Your task to perform on an android device: turn on javascript in the chrome app Image 0: 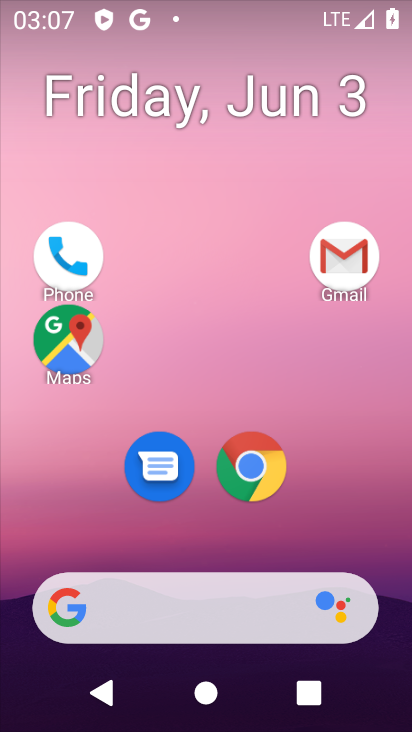
Step 0: click (203, 252)
Your task to perform on an android device: turn on javascript in the chrome app Image 1: 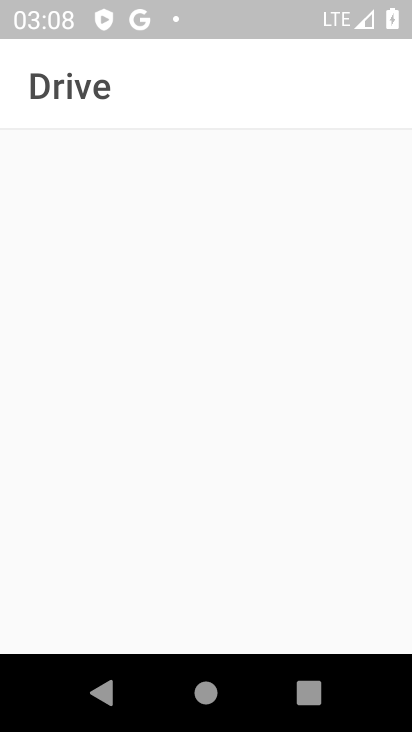
Step 1: press home button
Your task to perform on an android device: turn on javascript in the chrome app Image 2: 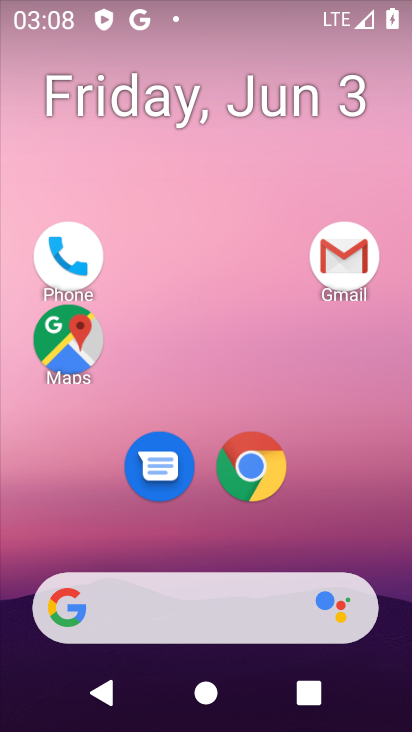
Step 2: drag from (196, 547) to (203, 75)
Your task to perform on an android device: turn on javascript in the chrome app Image 3: 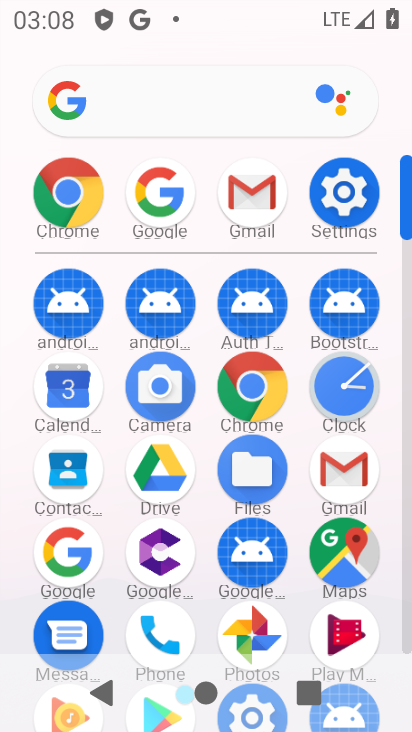
Step 3: click (66, 201)
Your task to perform on an android device: turn on javascript in the chrome app Image 4: 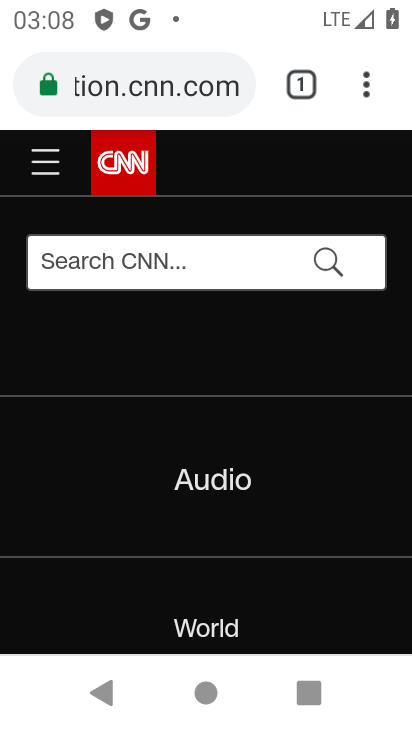
Step 4: click (367, 91)
Your task to perform on an android device: turn on javascript in the chrome app Image 5: 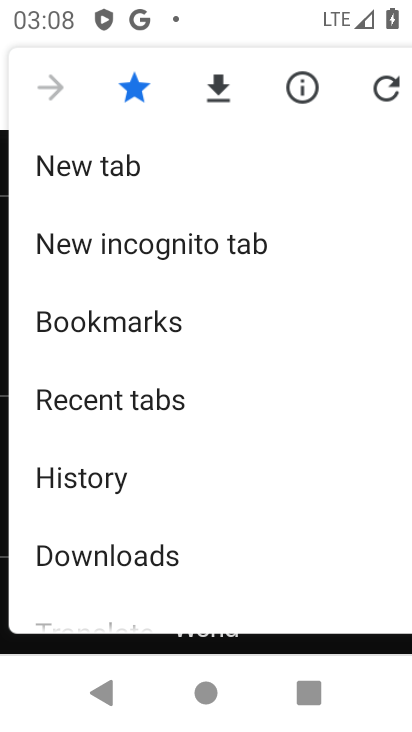
Step 5: drag from (167, 540) to (162, 201)
Your task to perform on an android device: turn on javascript in the chrome app Image 6: 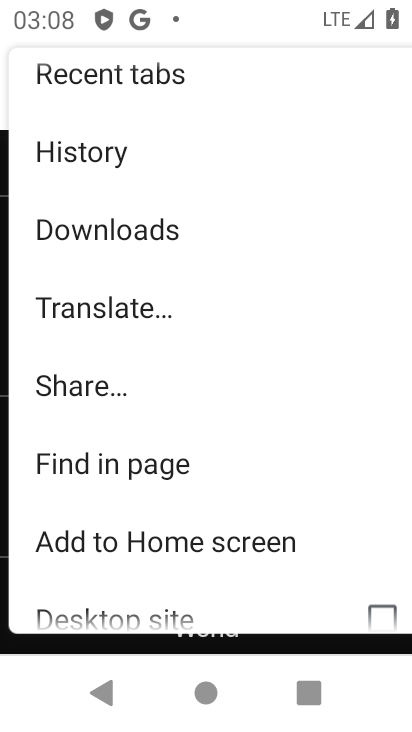
Step 6: drag from (165, 590) to (134, 240)
Your task to perform on an android device: turn on javascript in the chrome app Image 7: 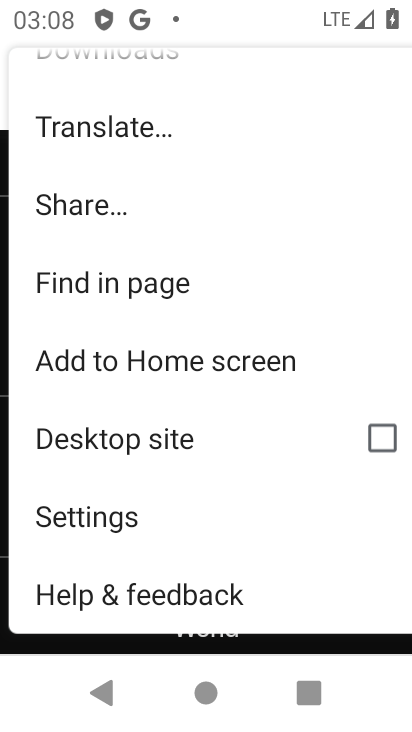
Step 7: click (109, 525)
Your task to perform on an android device: turn on javascript in the chrome app Image 8: 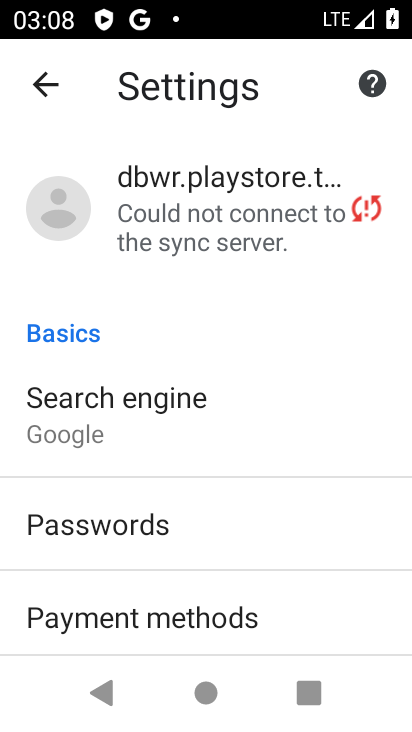
Step 8: drag from (168, 590) to (157, 298)
Your task to perform on an android device: turn on javascript in the chrome app Image 9: 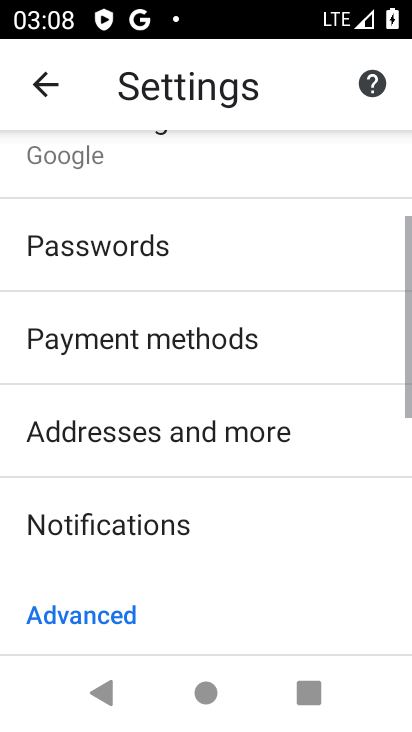
Step 9: drag from (173, 557) to (178, 217)
Your task to perform on an android device: turn on javascript in the chrome app Image 10: 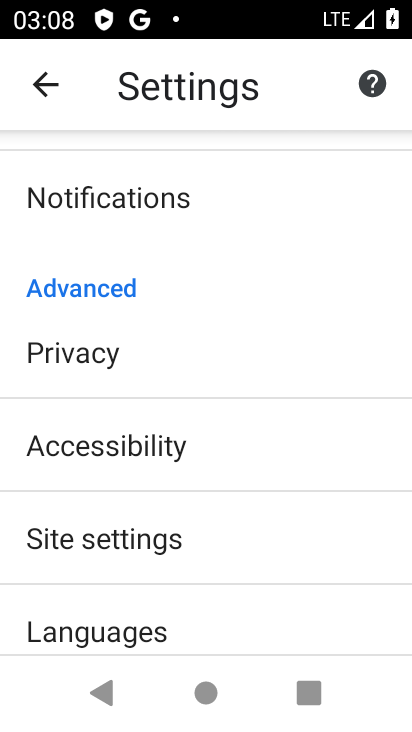
Step 10: click (128, 555)
Your task to perform on an android device: turn on javascript in the chrome app Image 11: 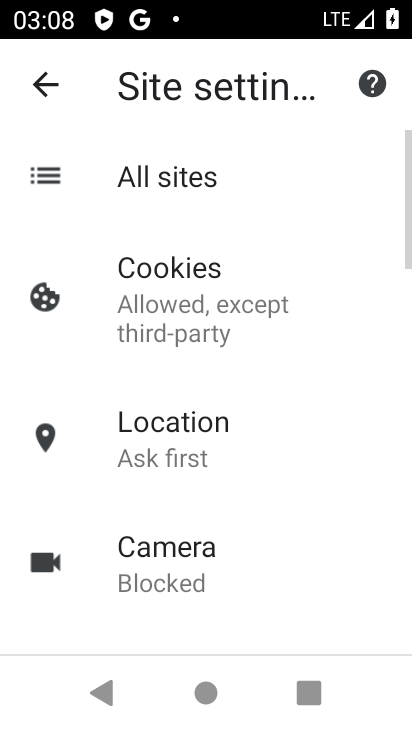
Step 11: drag from (171, 594) to (197, 266)
Your task to perform on an android device: turn on javascript in the chrome app Image 12: 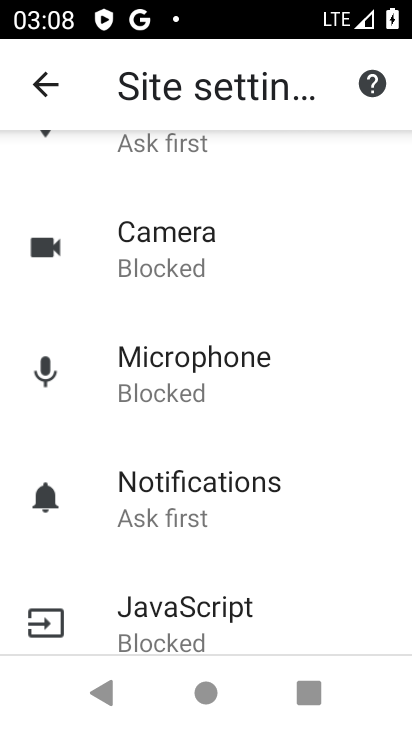
Step 12: drag from (209, 588) to (222, 299)
Your task to perform on an android device: turn on javascript in the chrome app Image 13: 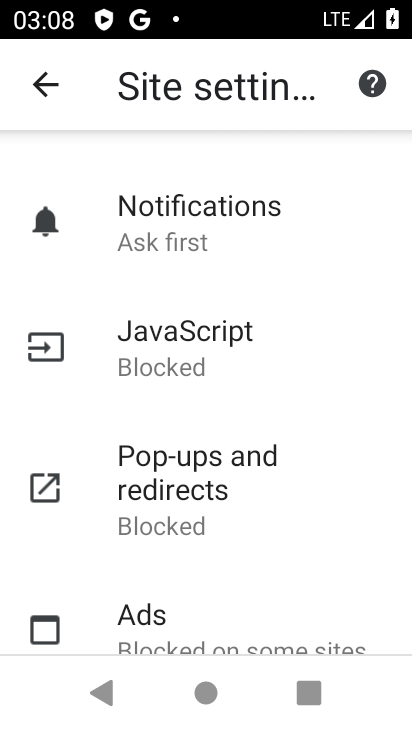
Step 13: click (160, 356)
Your task to perform on an android device: turn on javascript in the chrome app Image 14: 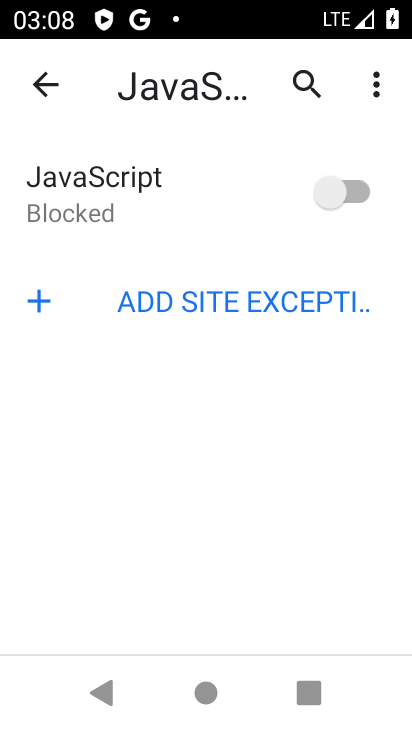
Step 14: click (358, 199)
Your task to perform on an android device: turn on javascript in the chrome app Image 15: 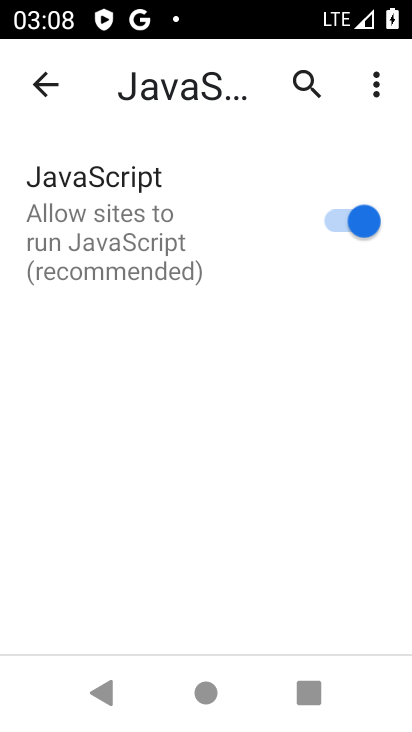
Step 15: task complete